Your task to perform on an android device: toggle sleep mode Image 0: 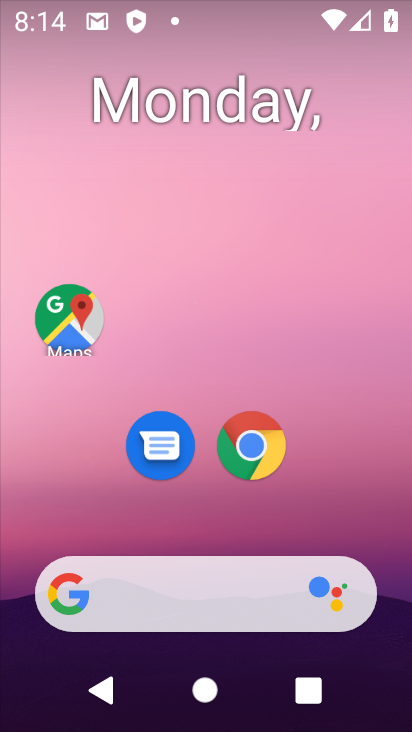
Step 0: drag from (234, 693) to (255, 114)
Your task to perform on an android device: toggle sleep mode Image 1: 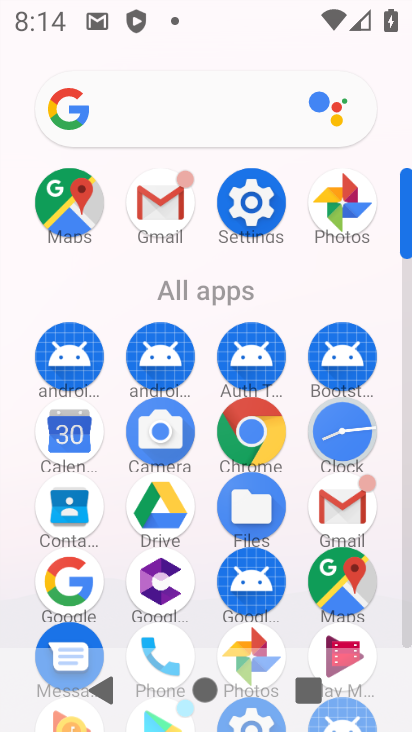
Step 1: click (221, 215)
Your task to perform on an android device: toggle sleep mode Image 2: 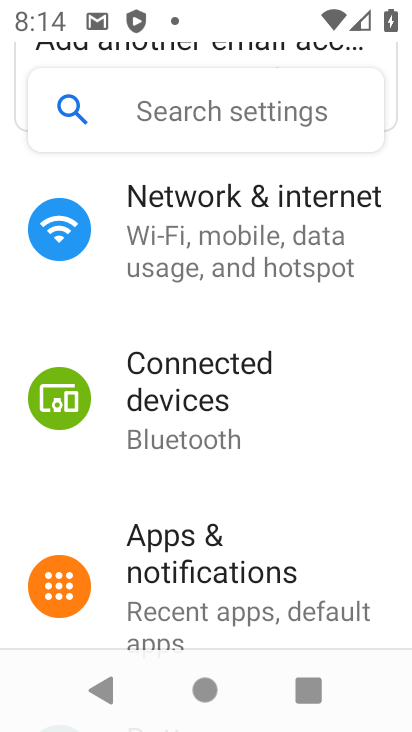
Step 2: drag from (292, 550) to (245, 77)
Your task to perform on an android device: toggle sleep mode Image 3: 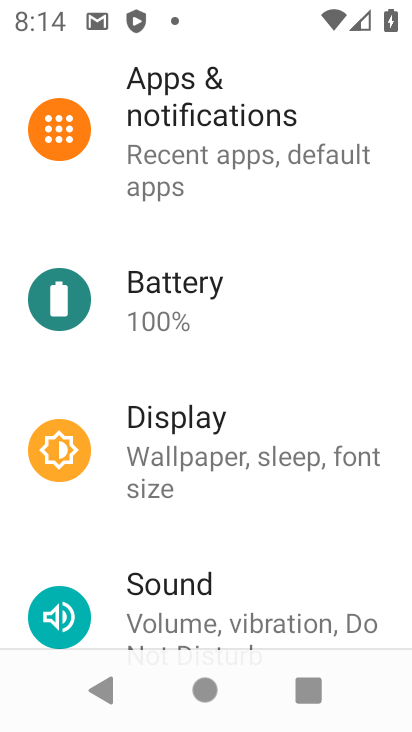
Step 3: click (269, 465)
Your task to perform on an android device: toggle sleep mode Image 4: 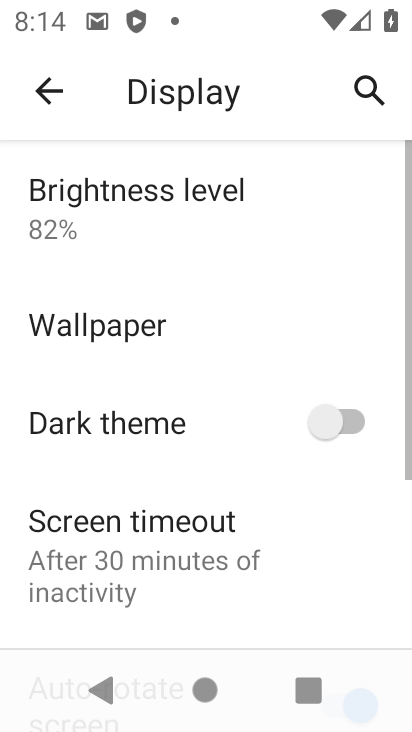
Step 4: task complete